Your task to perform on an android device: toggle location history Image 0: 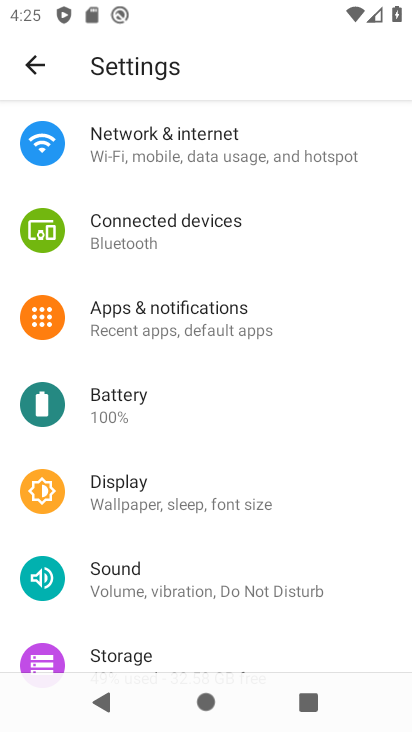
Step 0: press home button
Your task to perform on an android device: toggle location history Image 1: 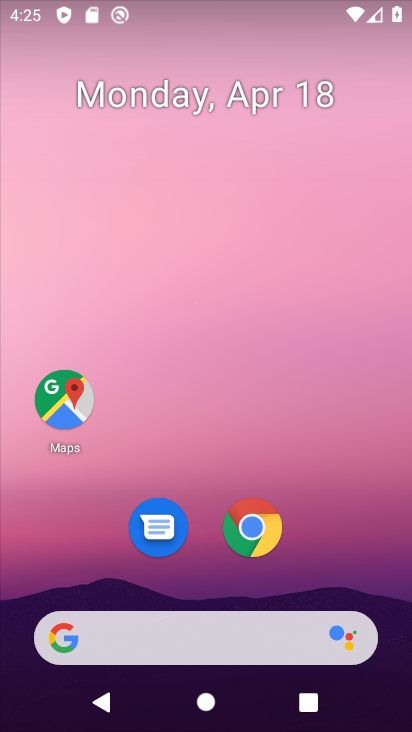
Step 1: drag from (205, 592) to (231, 79)
Your task to perform on an android device: toggle location history Image 2: 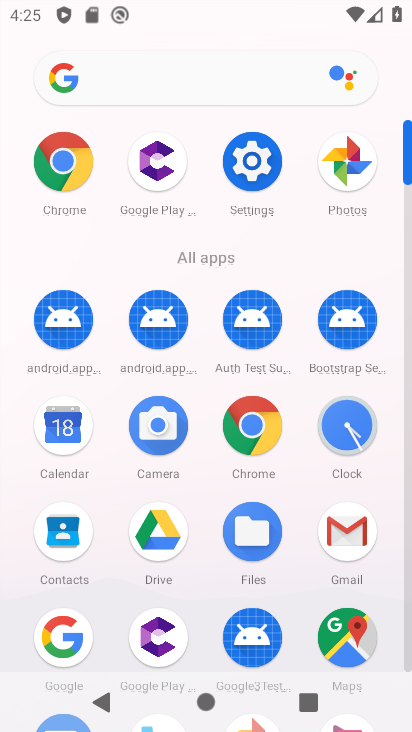
Step 2: click (248, 151)
Your task to perform on an android device: toggle location history Image 3: 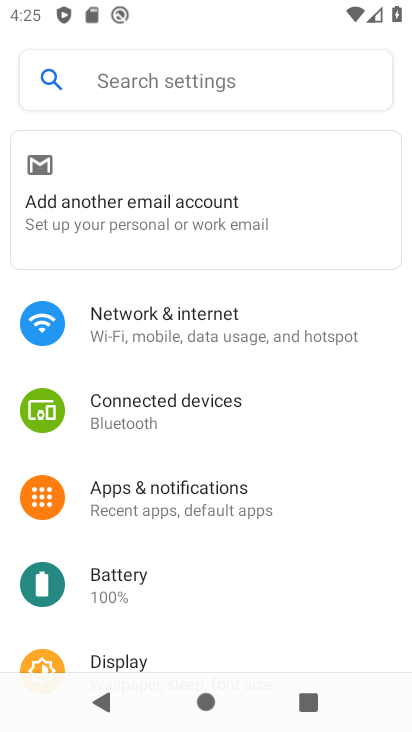
Step 3: drag from (218, 632) to (267, 214)
Your task to perform on an android device: toggle location history Image 4: 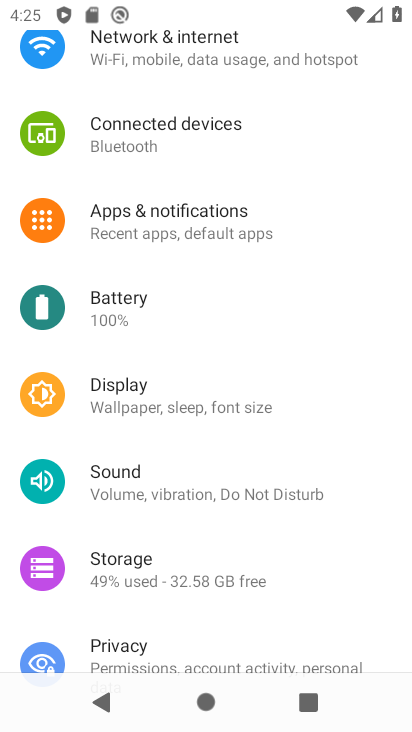
Step 4: drag from (188, 616) to (217, 123)
Your task to perform on an android device: toggle location history Image 5: 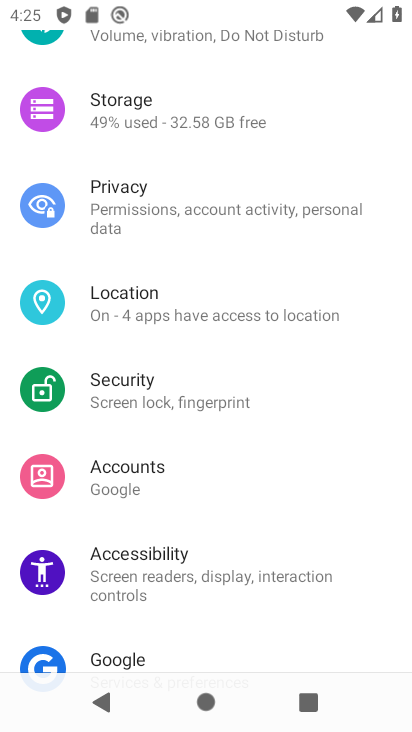
Step 5: click (181, 290)
Your task to perform on an android device: toggle location history Image 6: 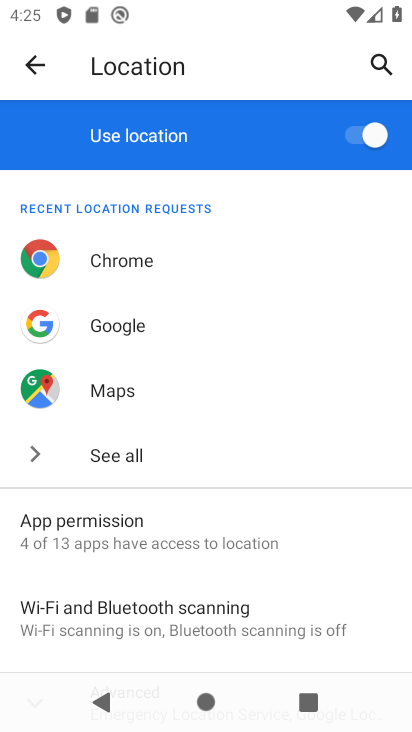
Step 6: drag from (264, 619) to (311, 126)
Your task to perform on an android device: toggle location history Image 7: 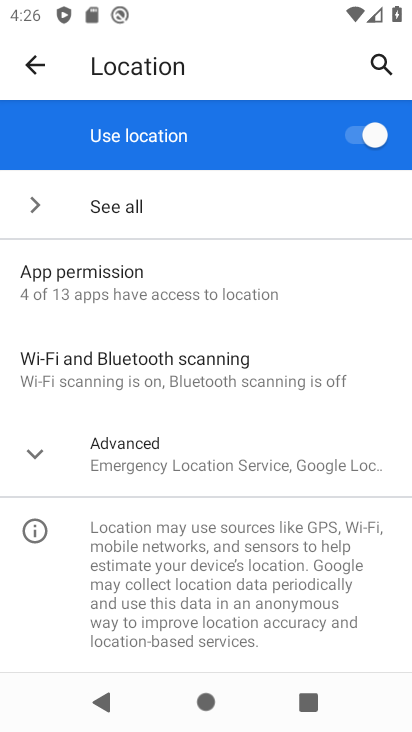
Step 7: click (27, 447)
Your task to perform on an android device: toggle location history Image 8: 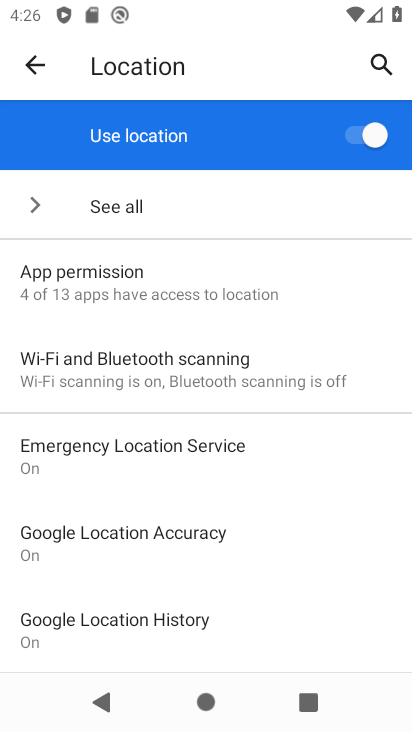
Step 8: click (156, 632)
Your task to perform on an android device: toggle location history Image 9: 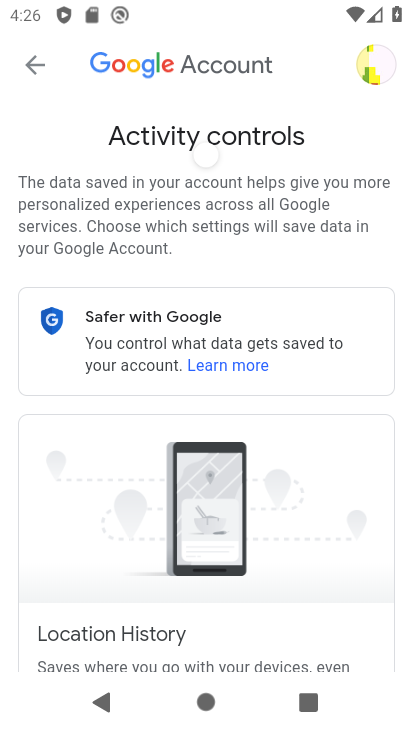
Step 9: drag from (244, 628) to (276, 137)
Your task to perform on an android device: toggle location history Image 10: 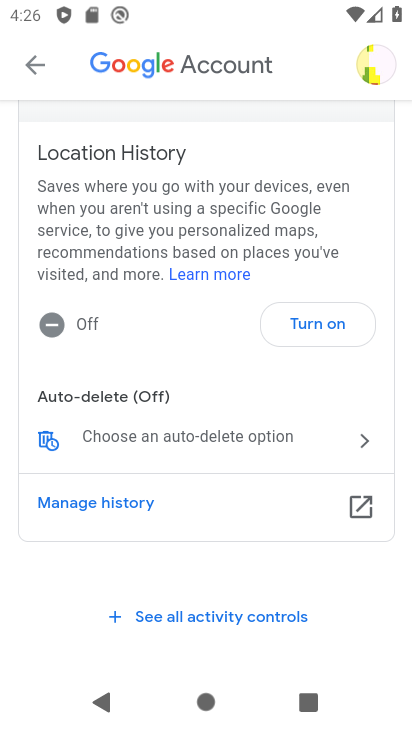
Step 10: click (314, 316)
Your task to perform on an android device: toggle location history Image 11: 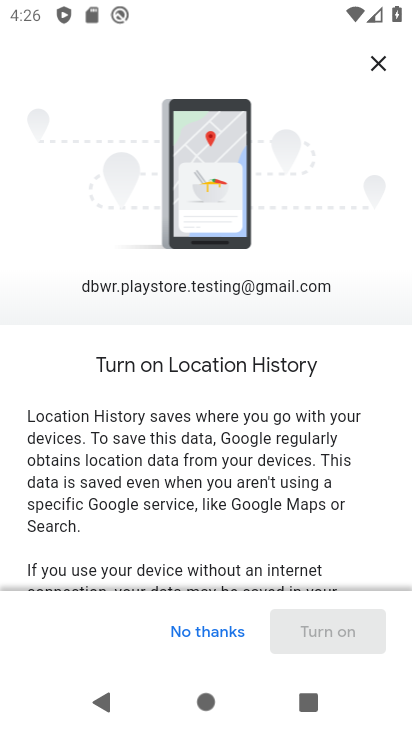
Step 11: drag from (294, 550) to (330, 147)
Your task to perform on an android device: toggle location history Image 12: 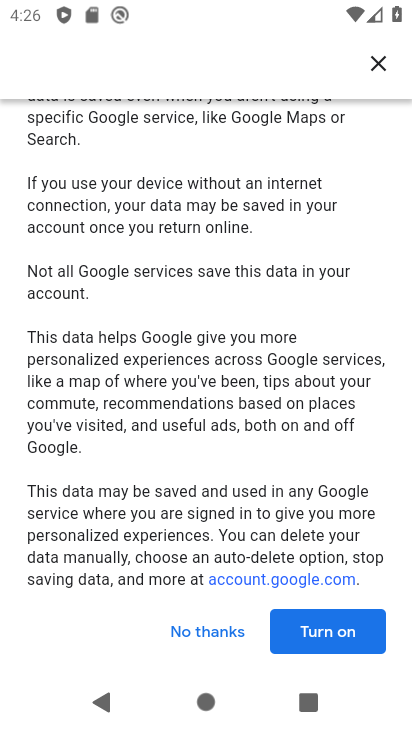
Step 12: drag from (256, 517) to (271, 299)
Your task to perform on an android device: toggle location history Image 13: 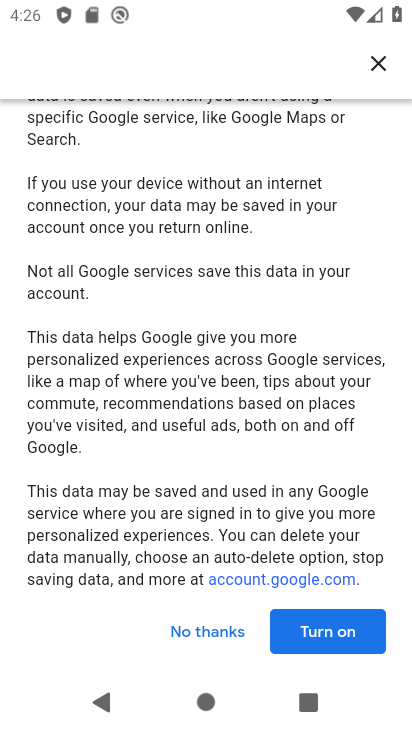
Step 13: click (339, 639)
Your task to perform on an android device: toggle location history Image 14: 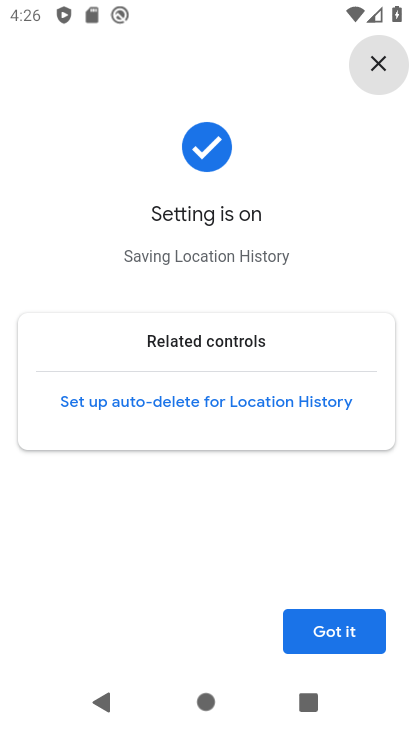
Step 14: click (332, 636)
Your task to perform on an android device: toggle location history Image 15: 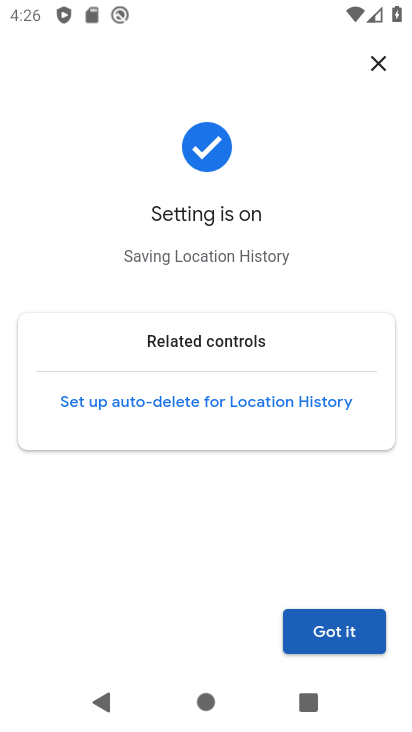
Step 15: click (339, 634)
Your task to perform on an android device: toggle location history Image 16: 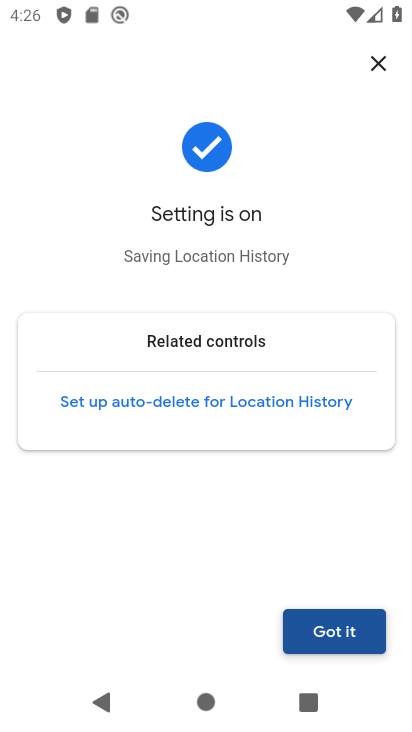
Step 16: task complete